Your task to perform on an android device: Open calendar and show me the fourth week of next month Image 0: 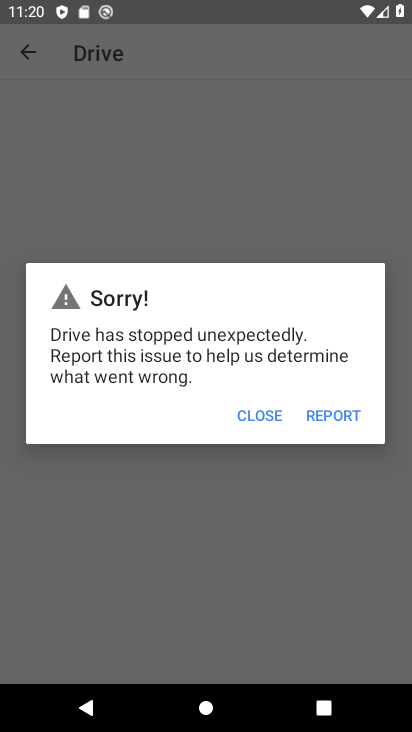
Step 0: press home button
Your task to perform on an android device: Open calendar and show me the fourth week of next month Image 1: 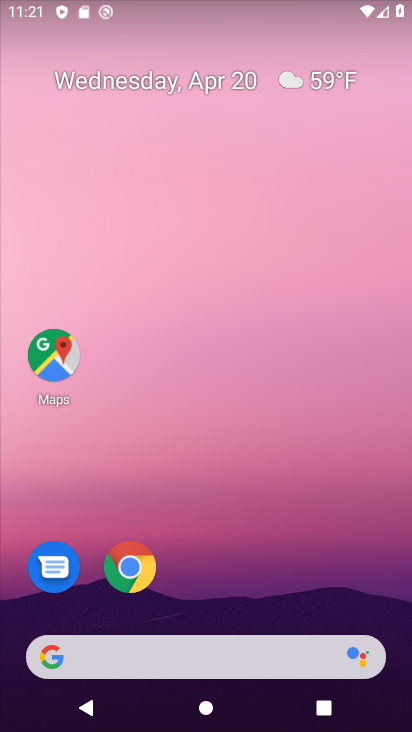
Step 1: drag from (309, 607) to (286, 93)
Your task to perform on an android device: Open calendar and show me the fourth week of next month Image 2: 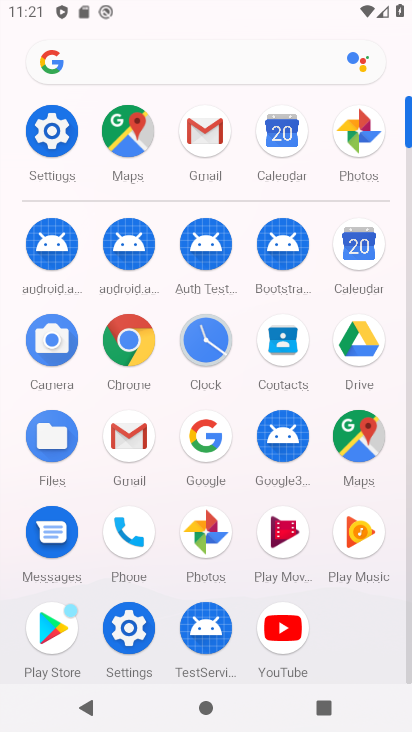
Step 2: click (367, 246)
Your task to perform on an android device: Open calendar and show me the fourth week of next month Image 3: 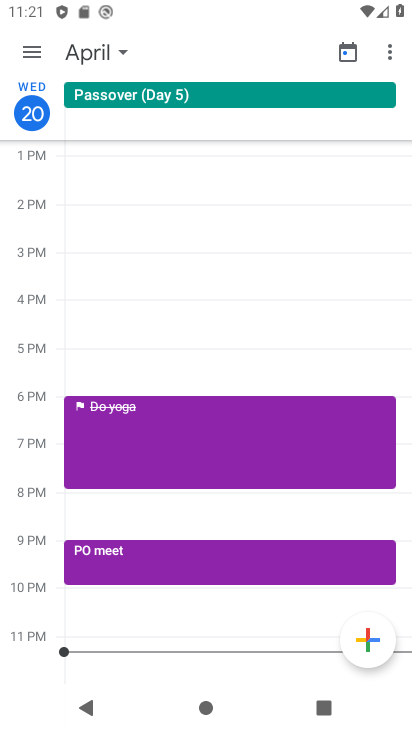
Step 3: click (107, 43)
Your task to perform on an android device: Open calendar and show me the fourth week of next month Image 4: 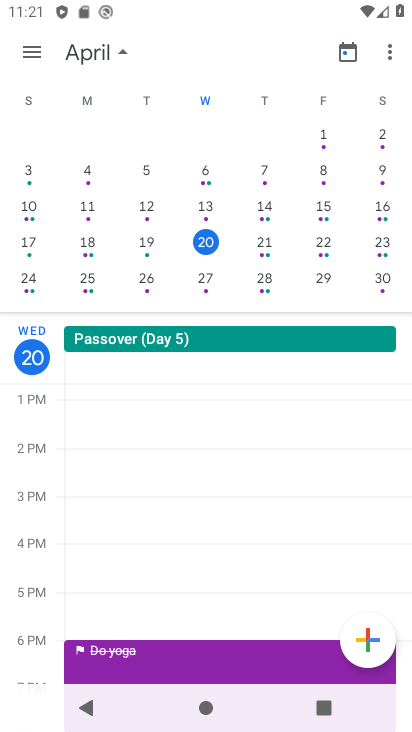
Step 4: drag from (354, 223) to (11, 210)
Your task to perform on an android device: Open calendar and show me the fourth week of next month Image 5: 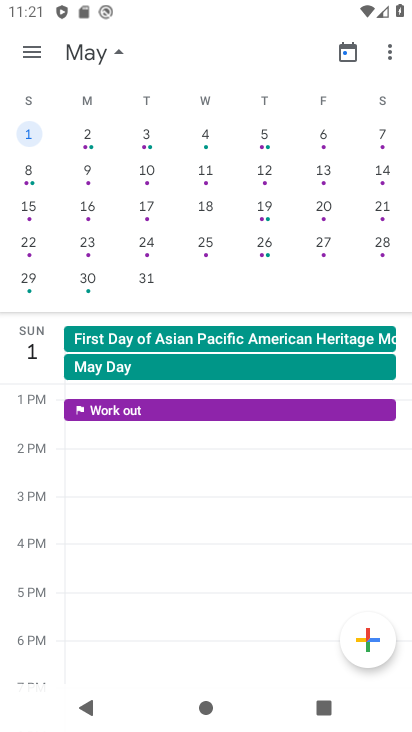
Step 5: click (36, 239)
Your task to perform on an android device: Open calendar and show me the fourth week of next month Image 6: 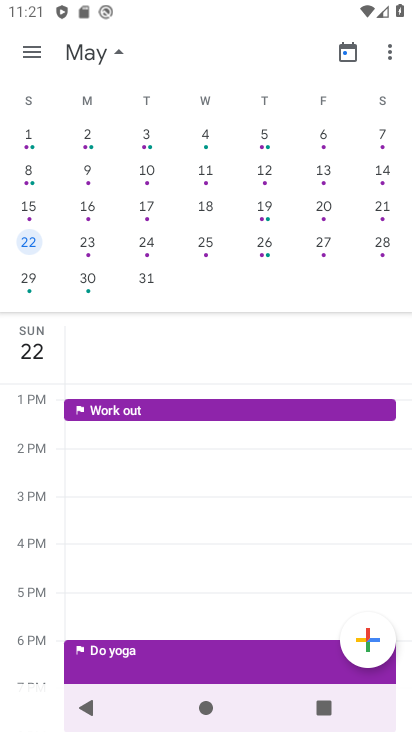
Step 6: task complete